Your task to perform on an android device: turn vacation reply on in the gmail app Image 0: 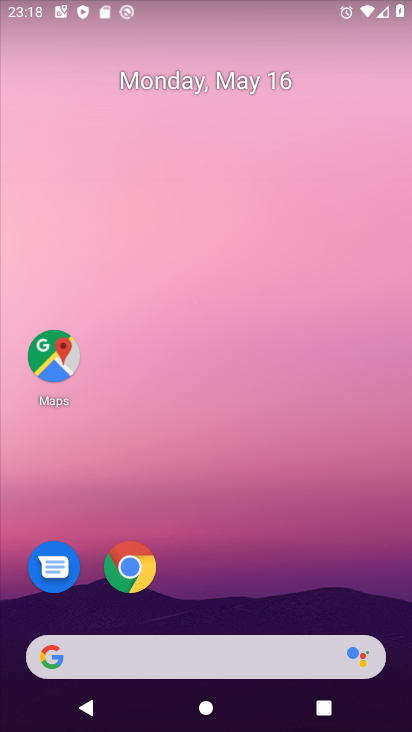
Step 0: drag from (228, 548) to (165, 103)
Your task to perform on an android device: turn vacation reply on in the gmail app Image 1: 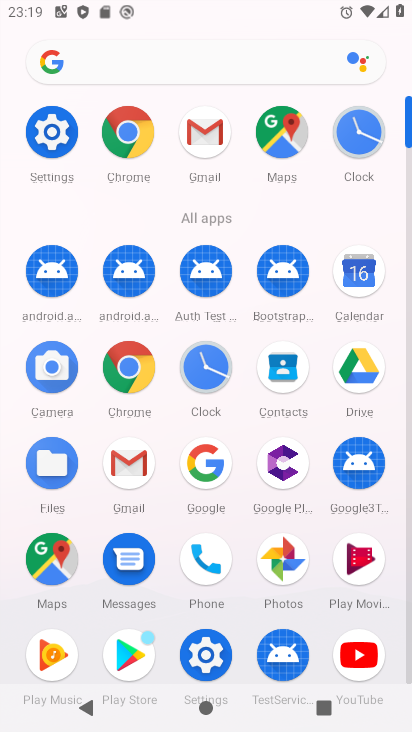
Step 1: click (125, 463)
Your task to perform on an android device: turn vacation reply on in the gmail app Image 2: 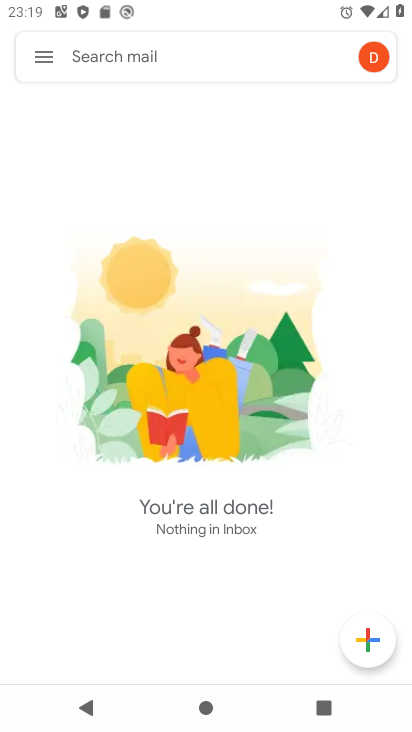
Step 2: click (40, 58)
Your task to perform on an android device: turn vacation reply on in the gmail app Image 3: 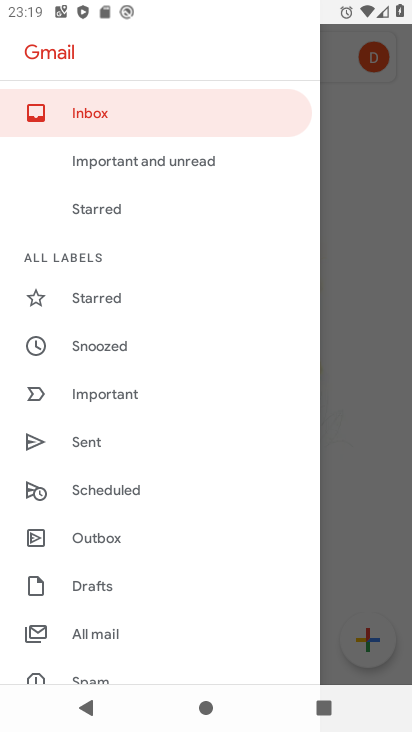
Step 3: drag from (171, 562) to (152, 281)
Your task to perform on an android device: turn vacation reply on in the gmail app Image 4: 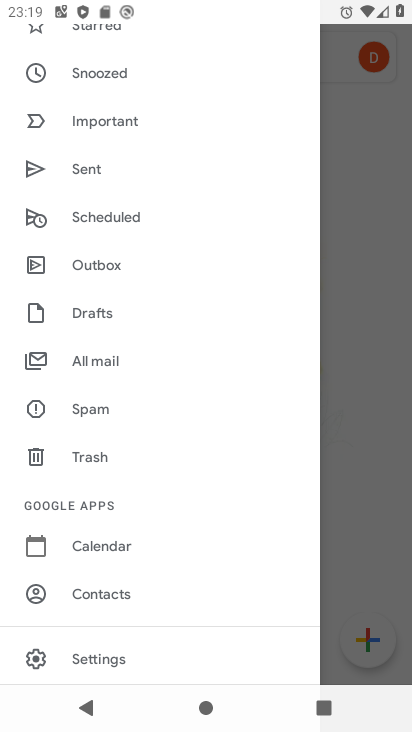
Step 4: drag from (181, 443) to (183, 262)
Your task to perform on an android device: turn vacation reply on in the gmail app Image 5: 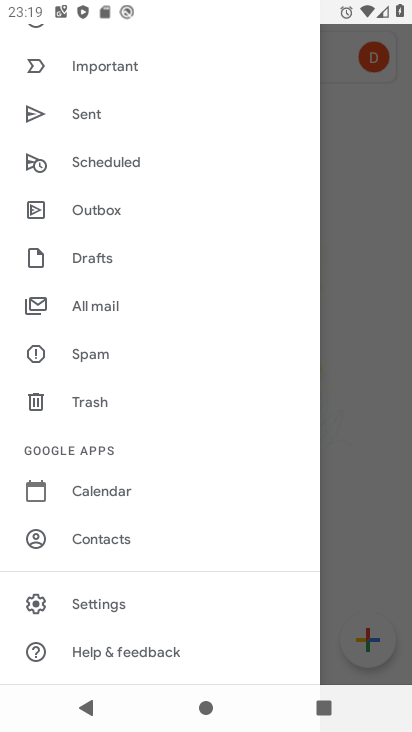
Step 5: click (93, 599)
Your task to perform on an android device: turn vacation reply on in the gmail app Image 6: 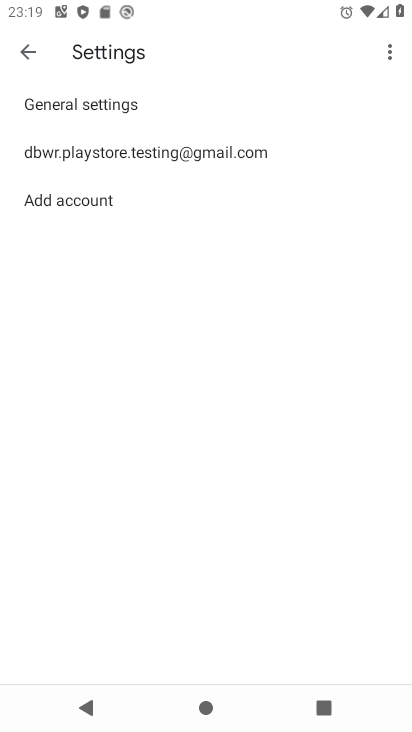
Step 6: click (110, 151)
Your task to perform on an android device: turn vacation reply on in the gmail app Image 7: 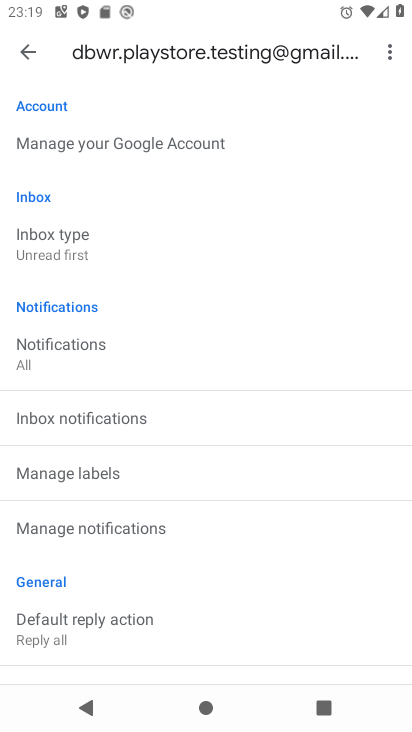
Step 7: drag from (203, 515) to (203, 262)
Your task to perform on an android device: turn vacation reply on in the gmail app Image 8: 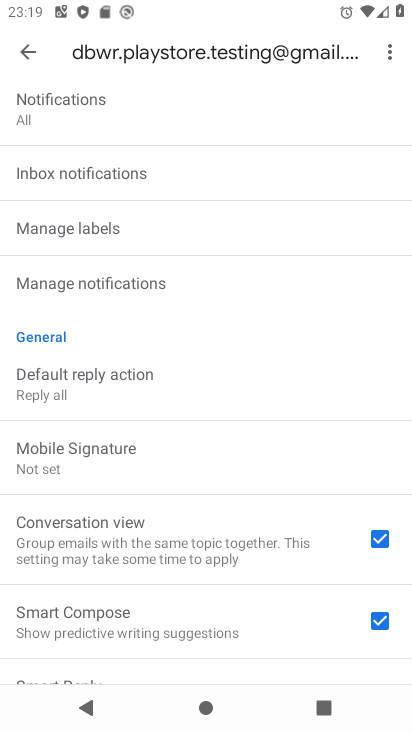
Step 8: drag from (208, 540) to (202, 414)
Your task to perform on an android device: turn vacation reply on in the gmail app Image 9: 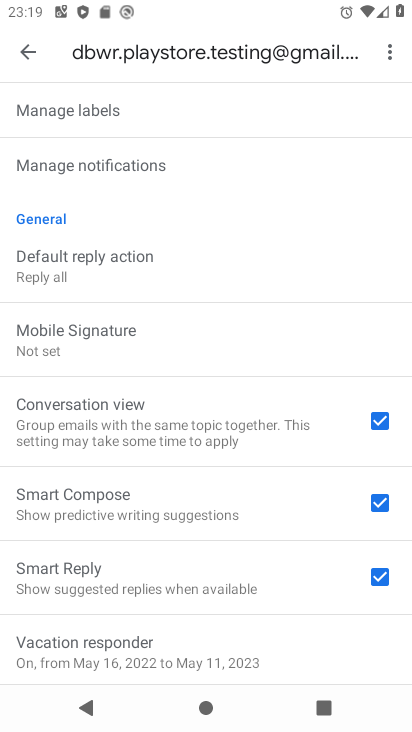
Step 9: click (119, 636)
Your task to perform on an android device: turn vacation reply on in the gmail app Image 10: 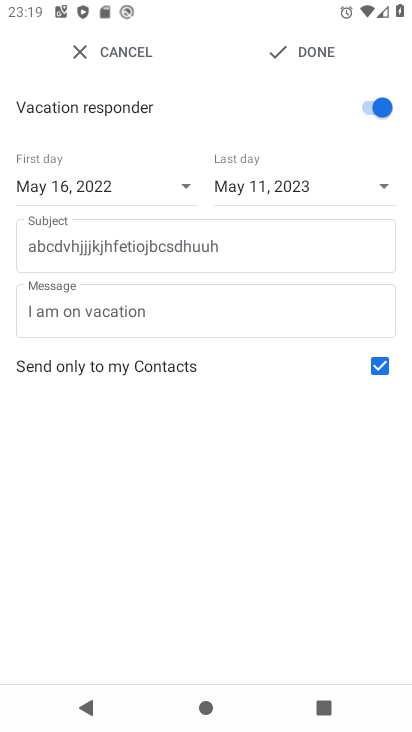
Step 10: task complete